Your task to perform on an android device: turn off translation in the chrome app Image 0: 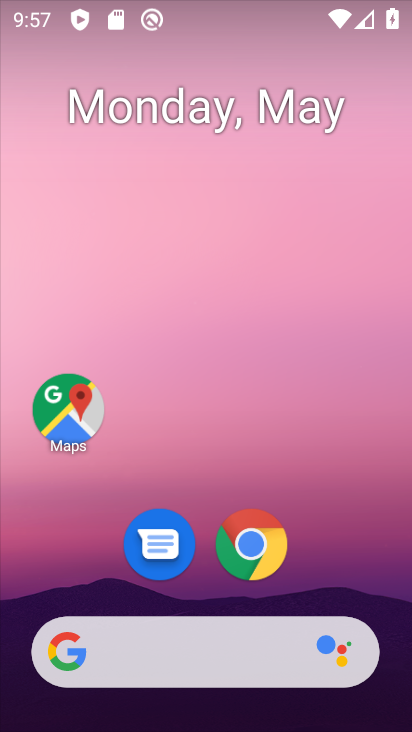
Step 0: drag from (311, 721) to (76, 147)
Your task to perform on an android device: turn off translation in the chrome app Image 1: 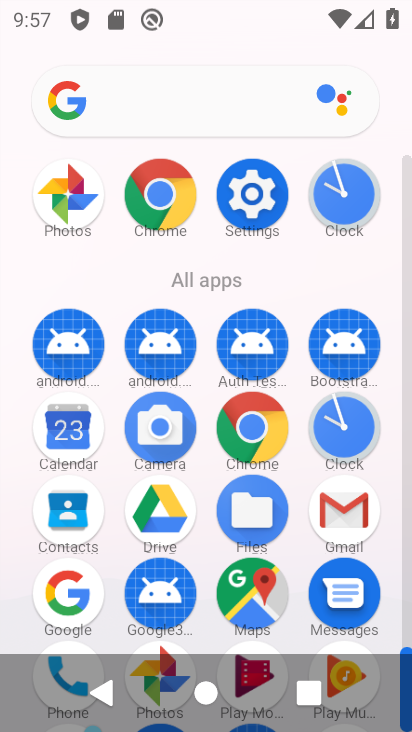
Step 1: click (155, 212)
Your task to perform on an android device: turn off translation in the chrome app Image 2: 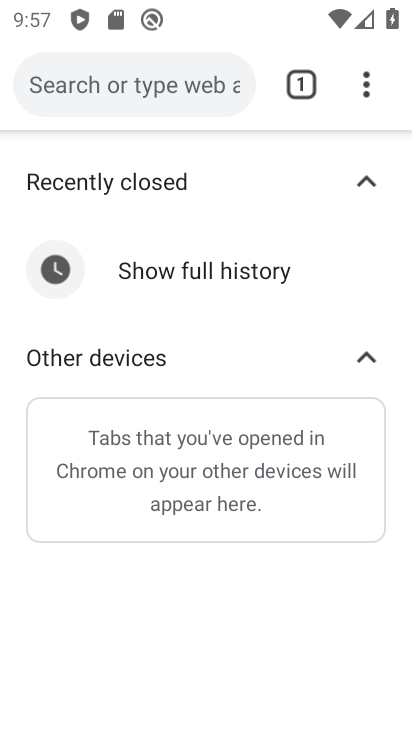
Step 2: drag from (361, 81) to (75, 599)
Your task to perform on an android device: turn off translation in the chrome app Image 3: 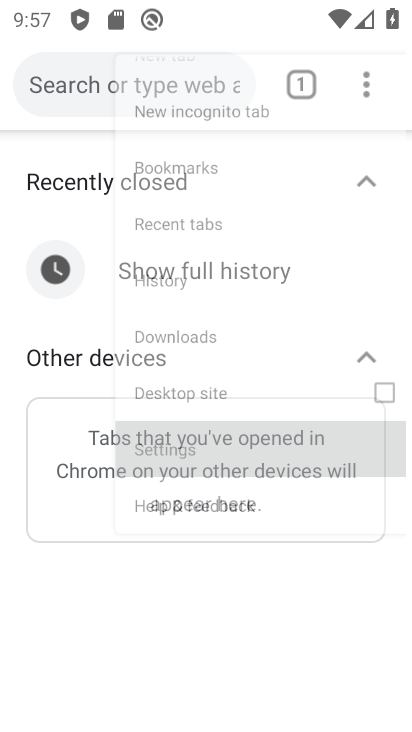
Step 3: click (84, 592)
Your task to perform on an android device: turn off translation in the chrome app Image 4: 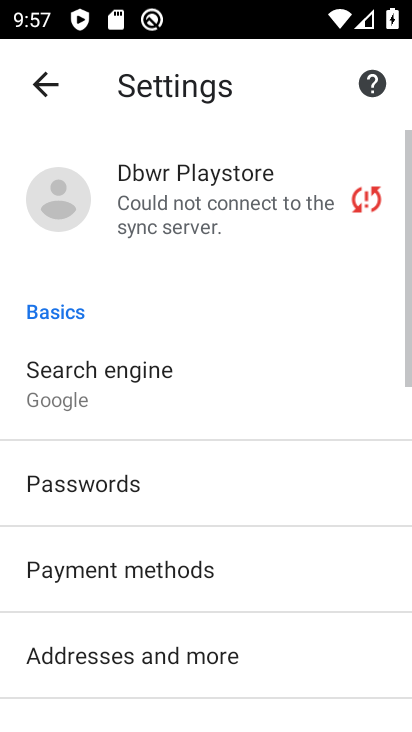
Step 4: drag from (130, 535) to (94, 56)
Your task to perform on an android device: turn off translation in the chrome app Image 5: 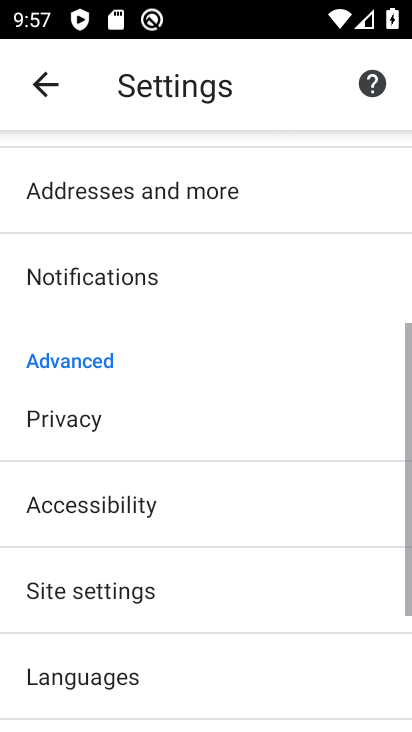
Step 5: drag from (116, 379) to (77, 124)
Your task to perform on an android device: turn off translation in the chrome app Image 6: 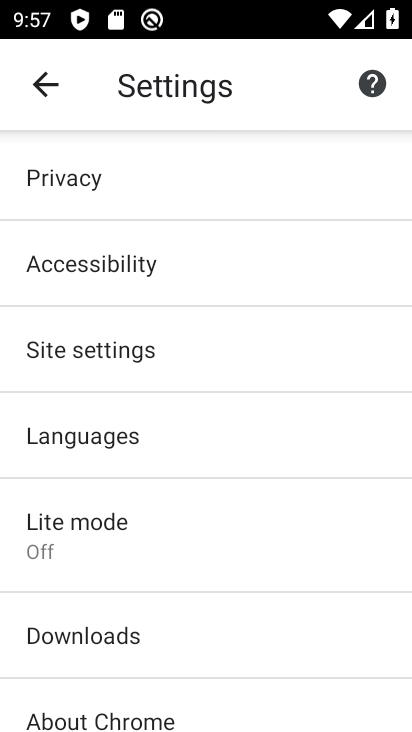
Step 6: click (62, 439)
Your task to perform on an android device: turn off translation in the chrome app Image 7: 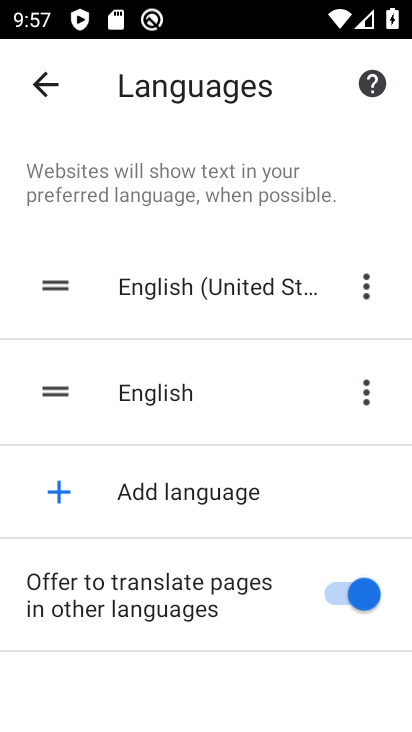
Step 7: click (362, 591)
Your task to perform on an android device: turn off translation in the chrome app Image 8: 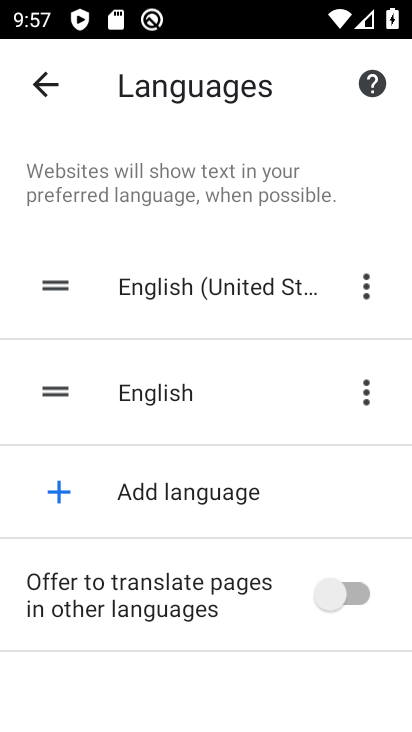
Step 8: task complete